Your task to perform on an android device: Set an alarm for 7pm Image 0: 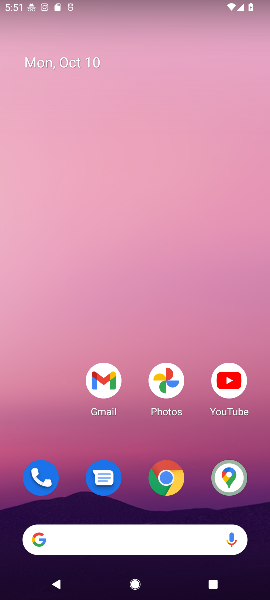
Step 0: drag from (137, 513) to (193, 169)
Your task to perform on an android device: Set an alarm for 7pm Image 1: 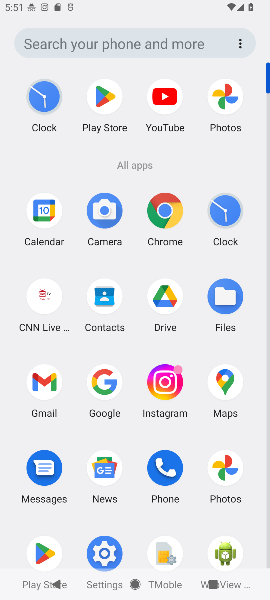
Step 1: click (36, 83)
Your task to perform on an android device: Set an alarm for 7pm Image 2: 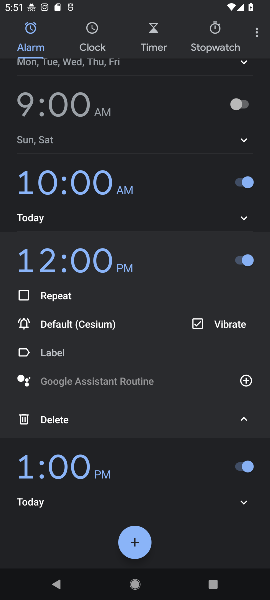
Step 2: click (136, 549)
Your task to perform on an android device: Set an alarm for 7pm Image 3: 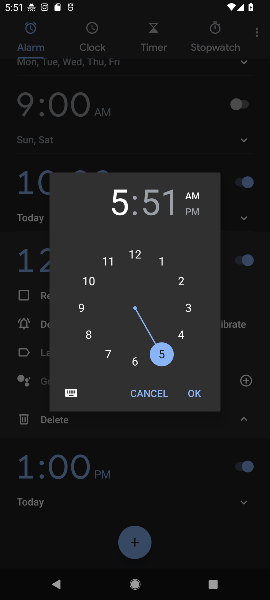
Step 3: click (107, 361)
Your task to perform on an android device: Set an alarm for 7pm Image 4: 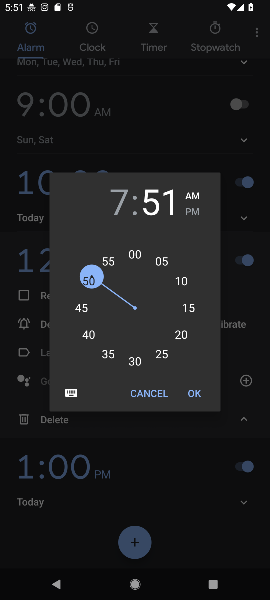
Step 4: click (132, 255)
Your task to perform on an android device: Set an alarm for 7pm Image 5: 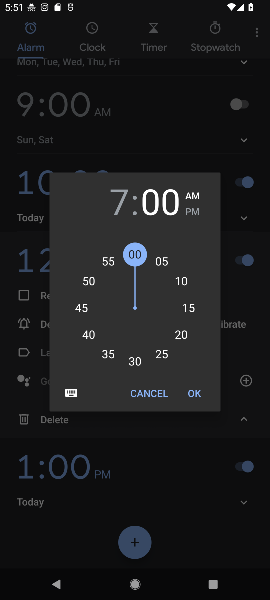
Step 5: click (189, 211)
Your task to perform on an android device: Set an alarm for 7pm Image 6: 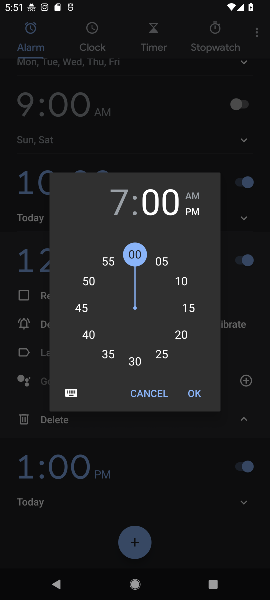
Step 6: click (196, 394)
Your task to perform on an android device: Set an alarm for 7pm Image 7: 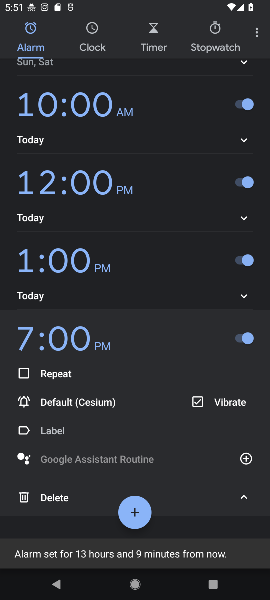
Step 7: task complete